Your task to perform on an android device: turn on priority inbox in the gmail app Image 0: 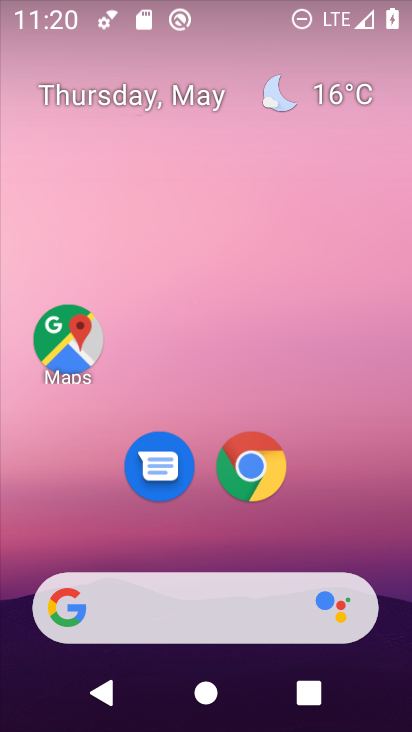
Step 0: drag from (292, 524) to (344, 190)
Your task to perform on an android device: turn on priority inbox in the gmail app Image 1: 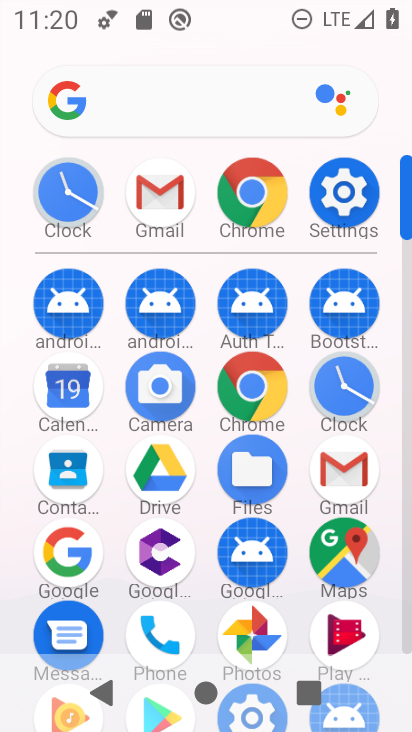
Step 1: click (360, 164)
Your task to perform on an android device: turn on priority inbox in the gmail app Image 2: 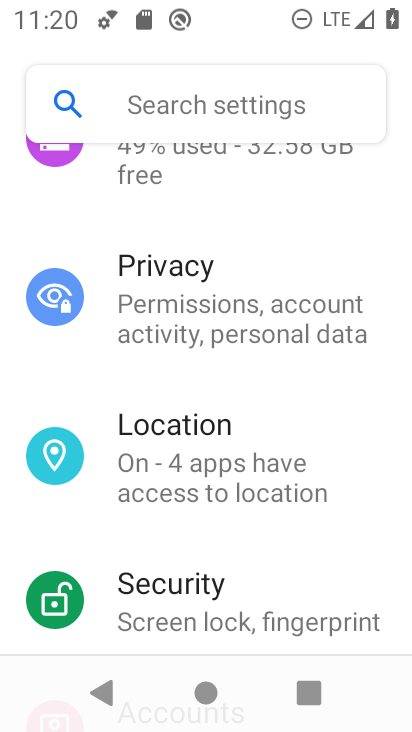
Step 2: press home button
Your task to perform on an android device: turn on priority inbox in the gmail app Image 3: 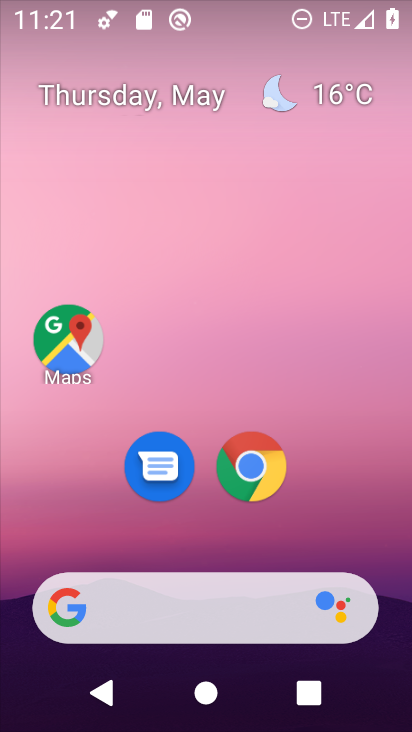
Step 3: drag from (298, 548) to (270, 417)
Your task to perform on an android device: turn on priority inbox in the gmail app Image 4: 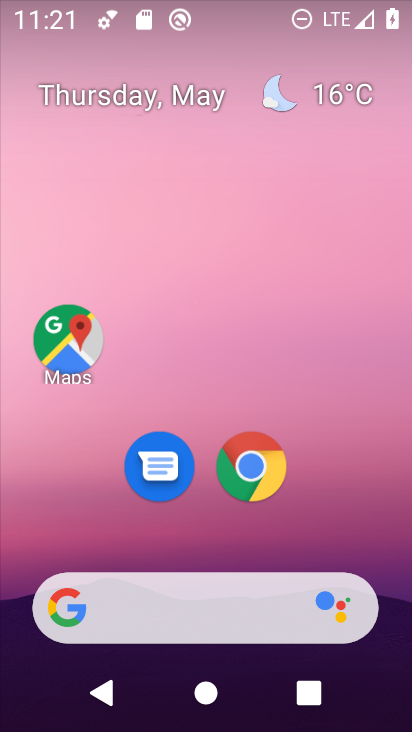
Step 4: click (258, 513)
Your task to perform on an android device: turn on priority inbox in the gmail app Image 5: 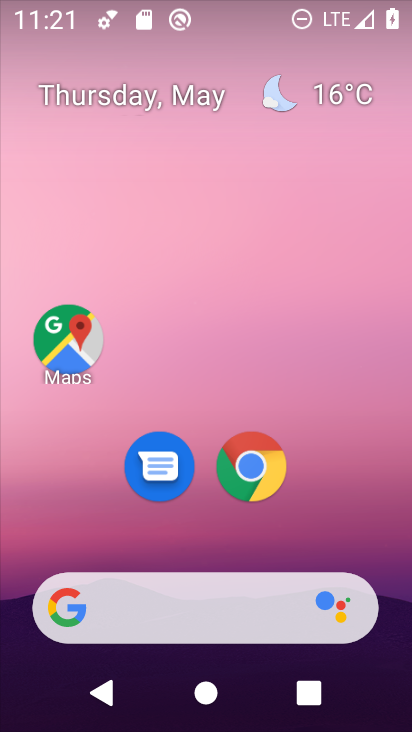
Step 5: drag from (221, 528) to (290, 232)
Your task to perform on an android device: turn on priority inbox in the gmail app Image 6: 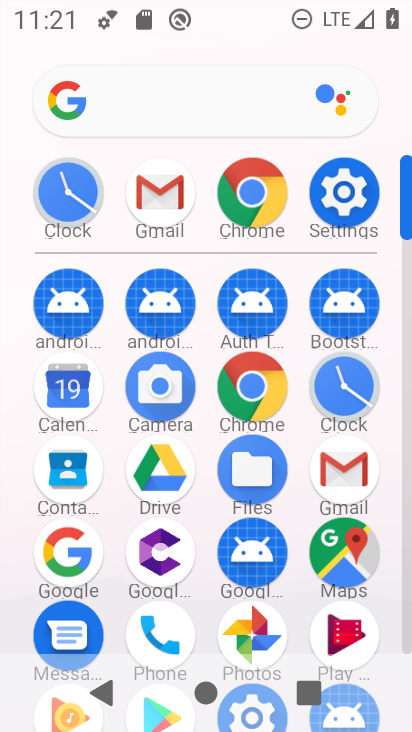
Step 6: click (338, 475)
Your task to perform on an android device: turn on priority inbox in the gmail app Image 7: 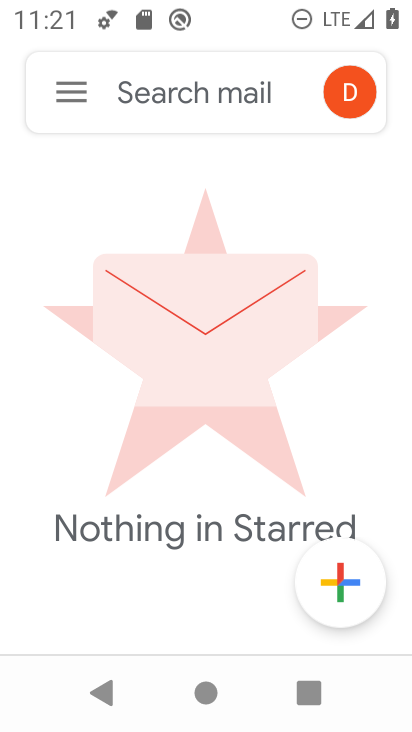
Step 7: click (51, 71)
Your task to perform on an android device: turn on priority inbox in the gmail app Image 8: 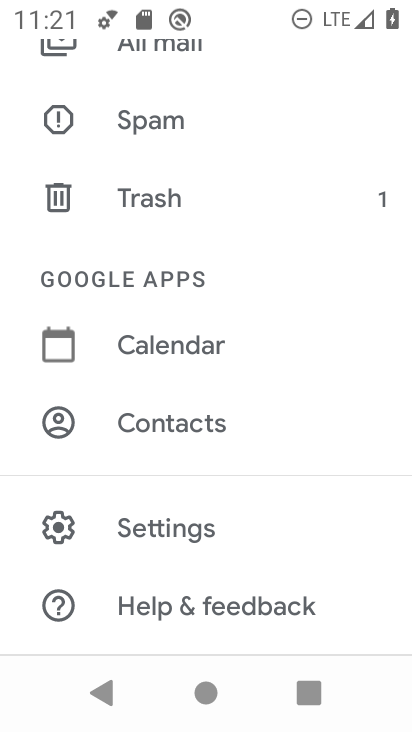
Step 8: click (214, 524)
Your task to perform on an android device: turn on priority inbox in the gmail app Image 9: 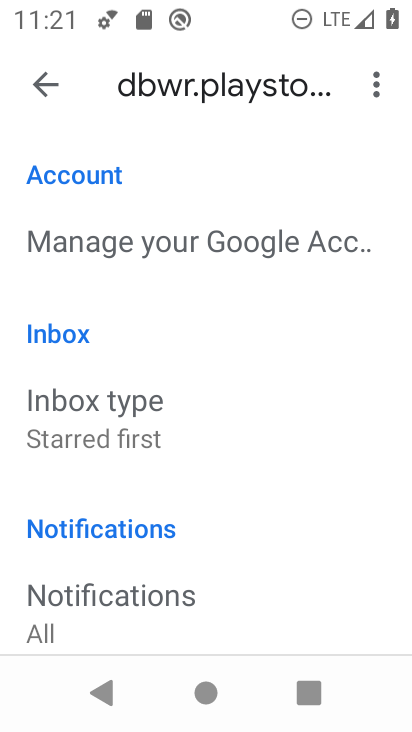
Step 9: click (132, 417)
Your task to perform on an android device: turn on priority inbox in the gmail app Image 10: 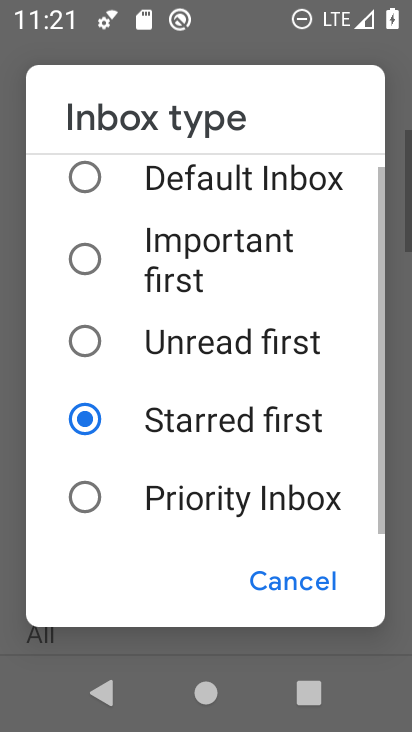
Step 10: click (200, 496)
Your task to perform on an android device: turn on priority inbox in the gmail app Image 11: 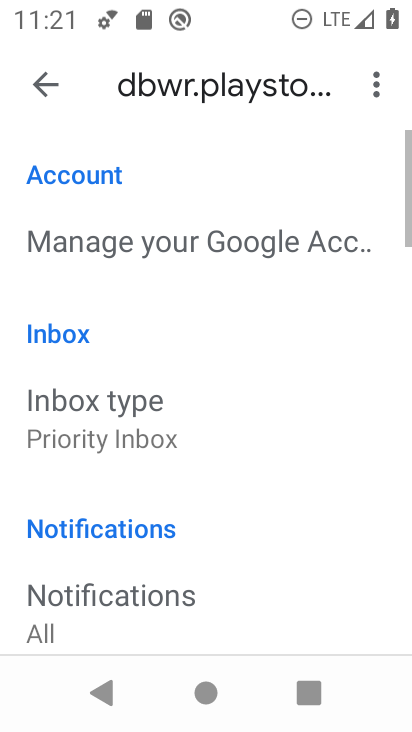
Step 11: task complete